Your task to perform on an android device: turn off translation in the chrome app Image 0: 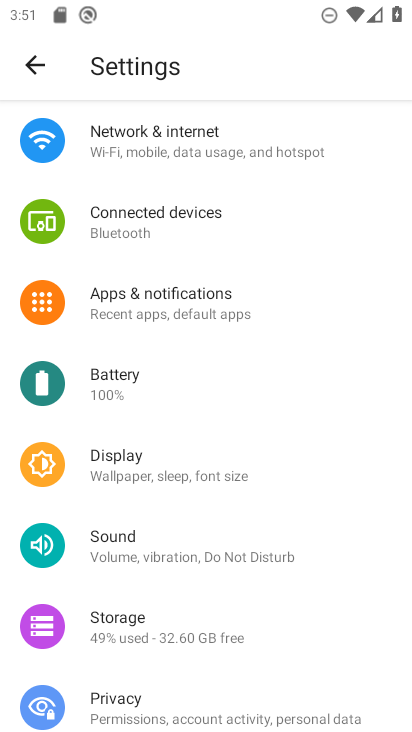
Step 0: press home button
Your task to perform on an android device: turn off translation in the chrome app Image 1: 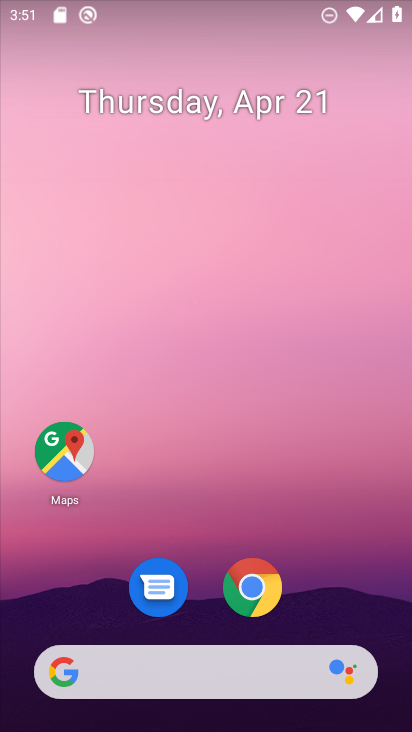
Step 1: click (245, 592)
Your task to perform on an android device: turn off translation in the chrome app Image 2: 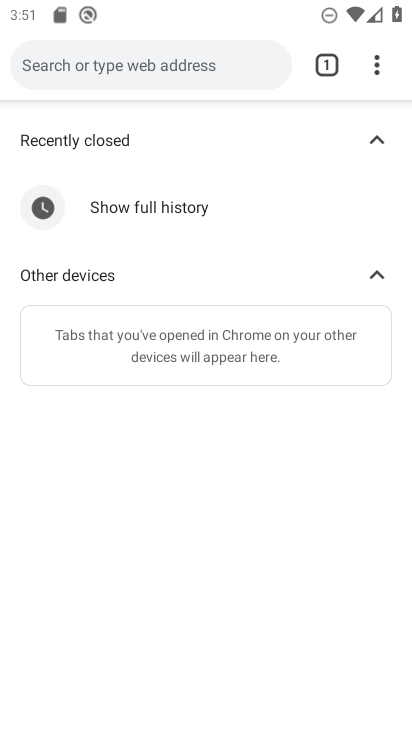
Step 2: click (371, 64)
Your task to perform on an android device: turn off translation in the chrome app Image 3: 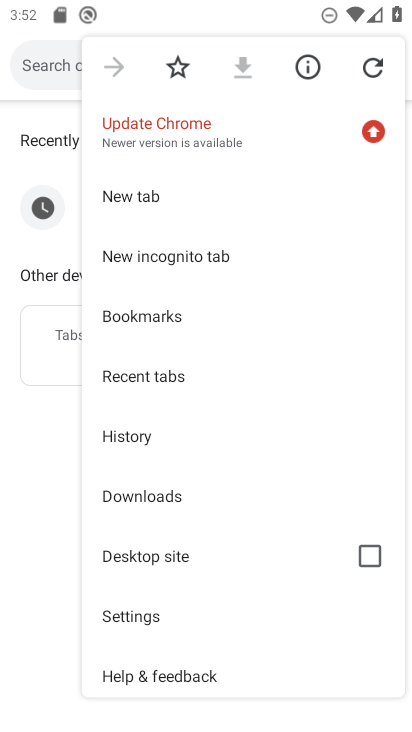
Step 3: click (127, 617)
Your task to perform on an android device: turn off translation in the chrome app Image 4: 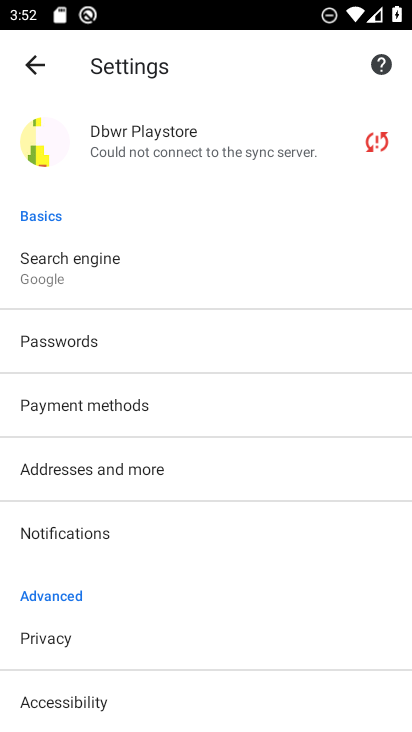
Step 4: drag from (196, 639) to (222, 252)
Your task to perform on an android device: turn off translation in the chrome app Image 5: 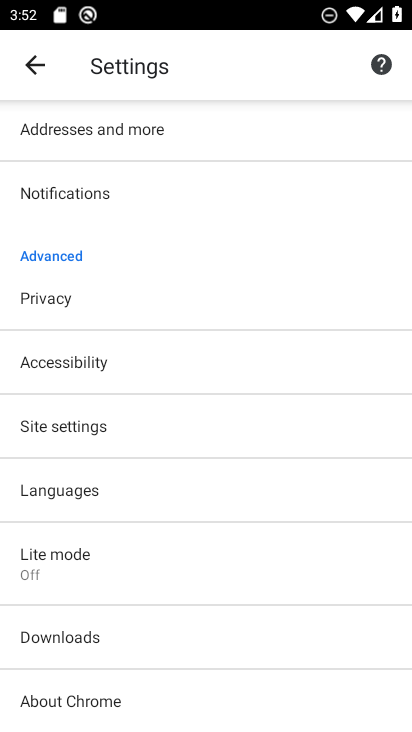
Step 5: click (51, 498)
Your task to perform on an android device: turn off translation in the chrome app Image 6: 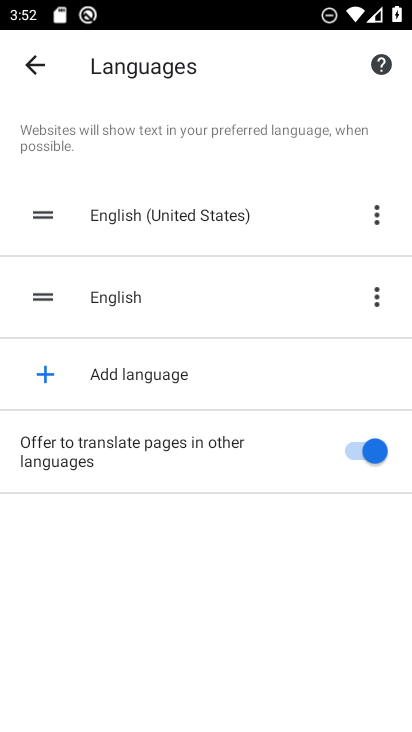
Step 6: click (372, 457)
Your task to perform on an android device: turn off translation in the chrome app Image 7: 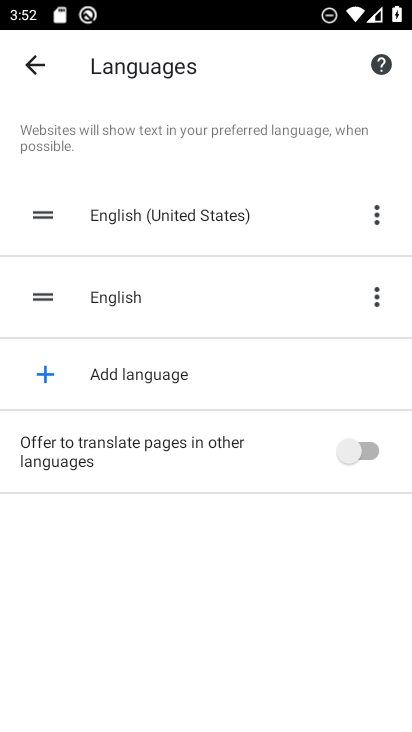
Step 7: task complete